Your task to perform on an android device: Open Google Chrome Image 0: 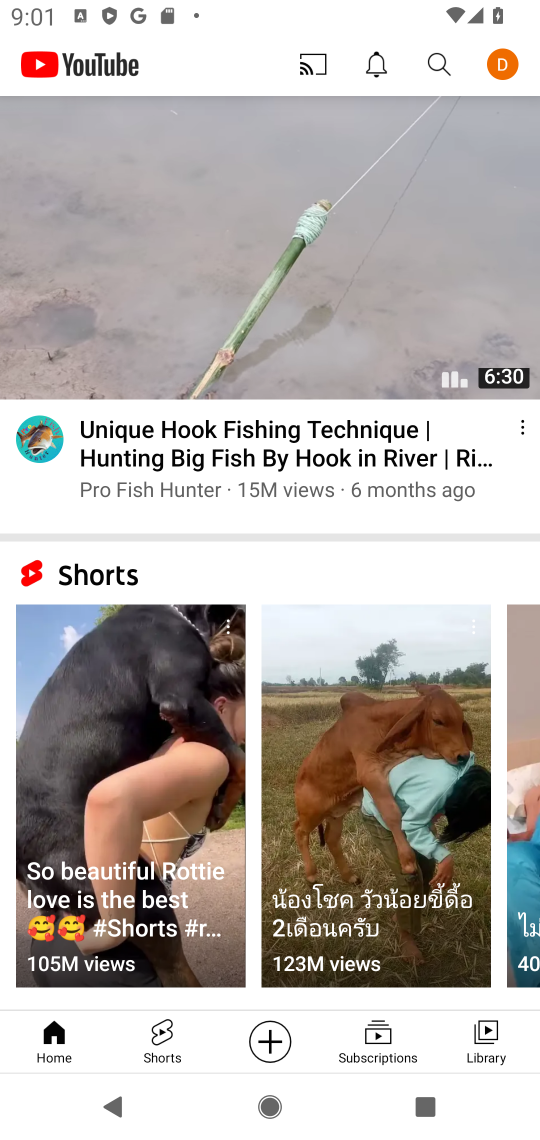
Step 0: press home button
Your task to perform on an android device: Open Google Chrome Image 1: 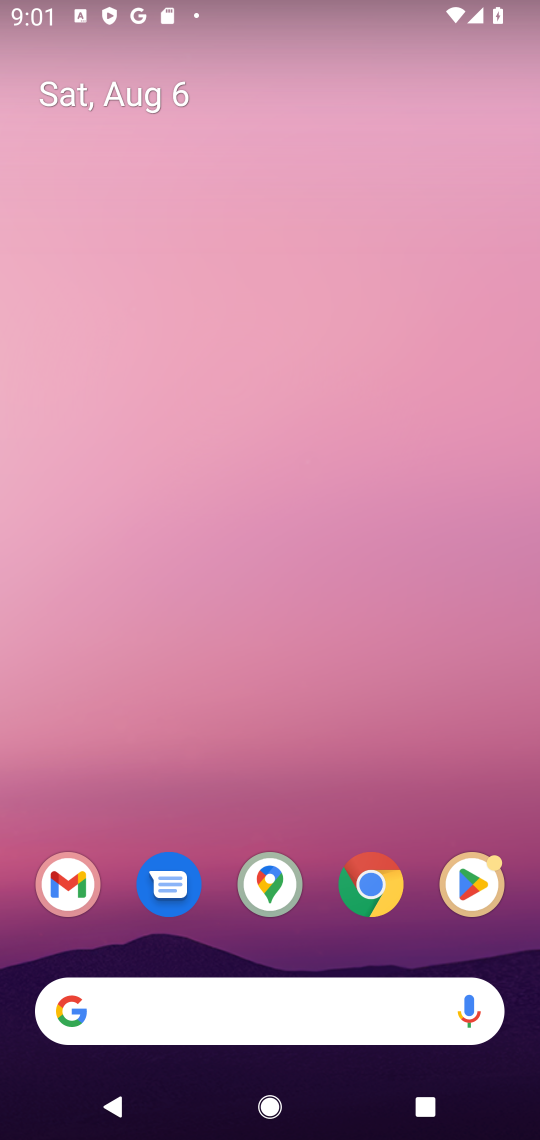
Step 1: click (368, 886)
Your task to perform on an android device: Open Google Chrome Image 2: 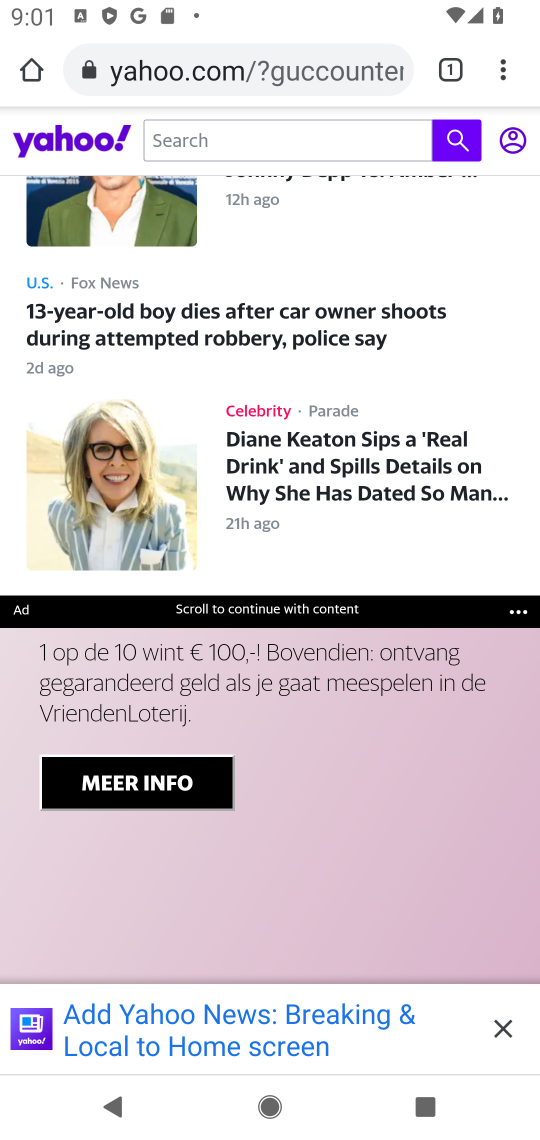
Step 2: task complete